Your task to perform on an android device: turn on bluetooth scan Image 0: 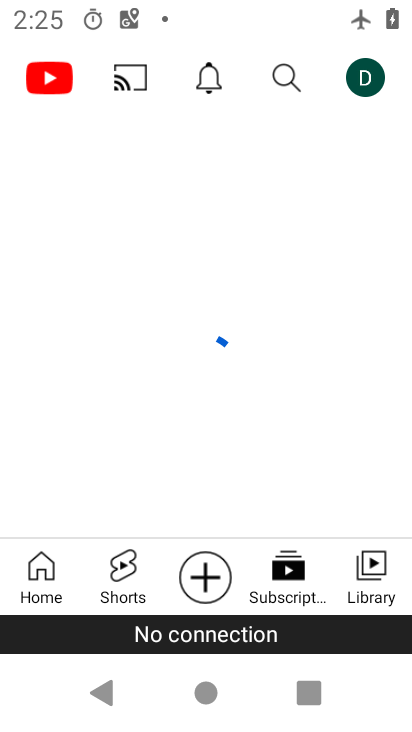
Step 0: press home button
Your task to perform on an android device: turn on bluetooth scan Image 1: 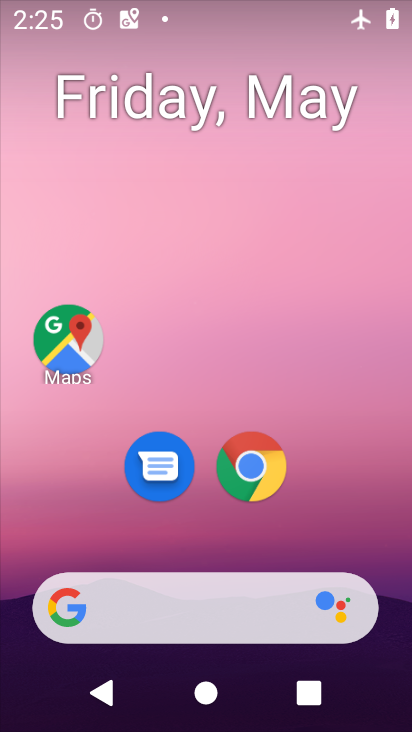
Step 1: drag from (349, 522) to (368, 58)
Your task to perform on an android device: turn on bluetooth scan Image 2: 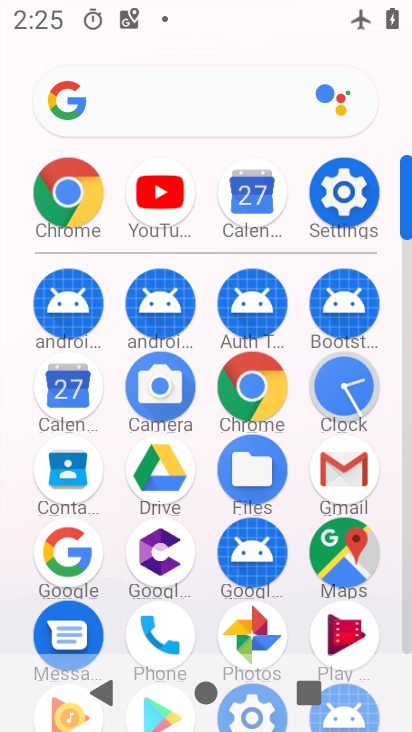
Step 2: click (338, 209)
Your task to perform on an android device: turn on bluetooth scan Image 3: 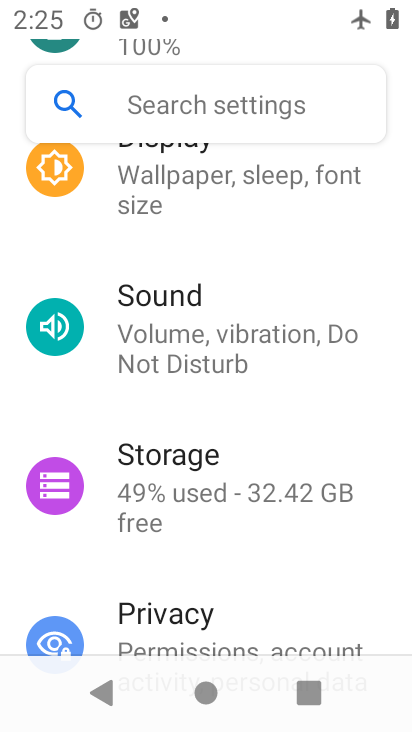
Step 3: drag from (277, 208) to (241, 642)
Your task to perform on an android device: turn on bluetooth scan Image 4: 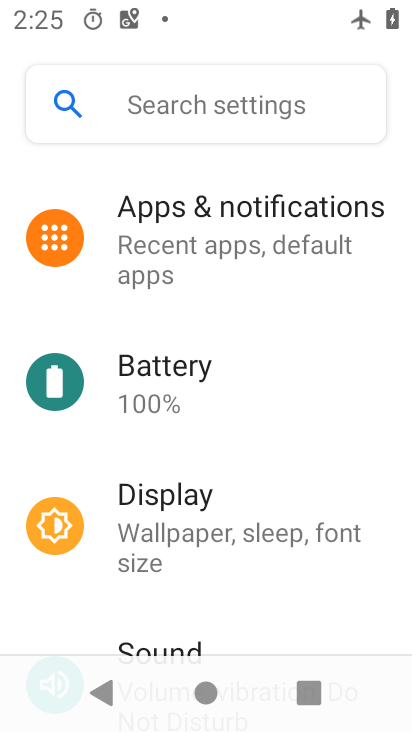
Step 4: drag from (247, 212) to (202, 646)
Your task to perform on an android device: turn on bluetooth scan Image 5: 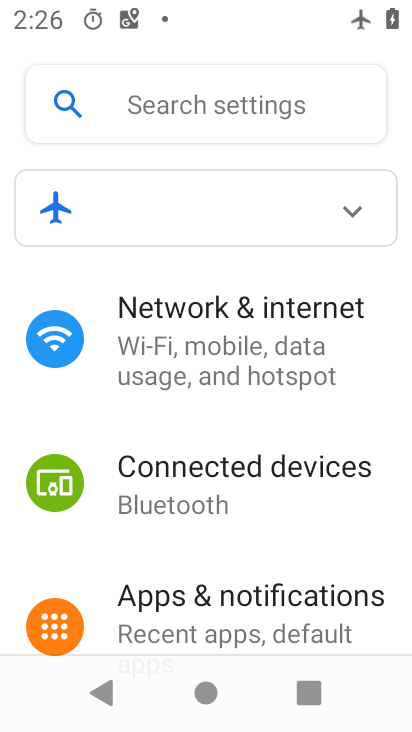
Step 5: click (244, 314)
Your task to perform on an android device: turn on bluetooth scan Image 6: 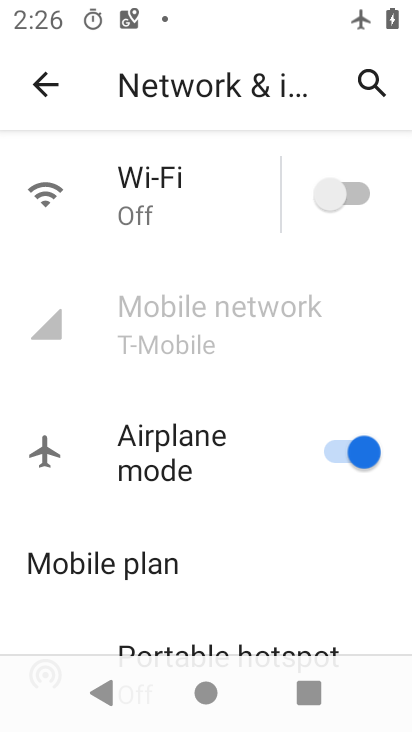
Step 6: click (347, 442)
Your task to perform on an android device: turn on bluetooth scan Image 7: 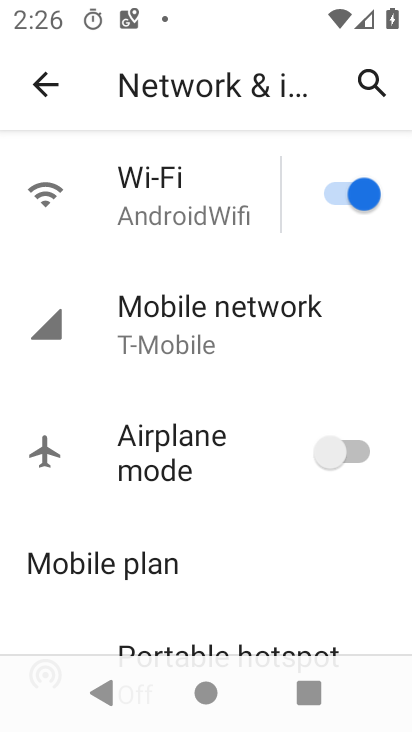
Step 7: task complete